Your task to perform on an android device: Open the calendar app, open the side menu, and click the "Day" option Image 0: 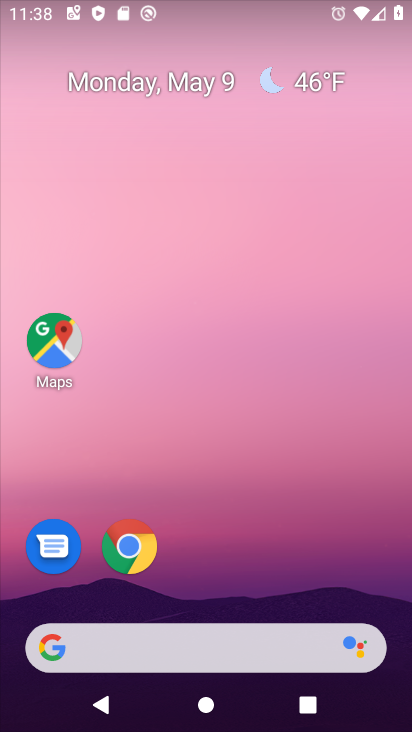
Step 0: drag from (341, 577) to (341, 79)
Your task to perform on an android device: Open the calendar app, open the side menu, and click the "Day" option Image 1: 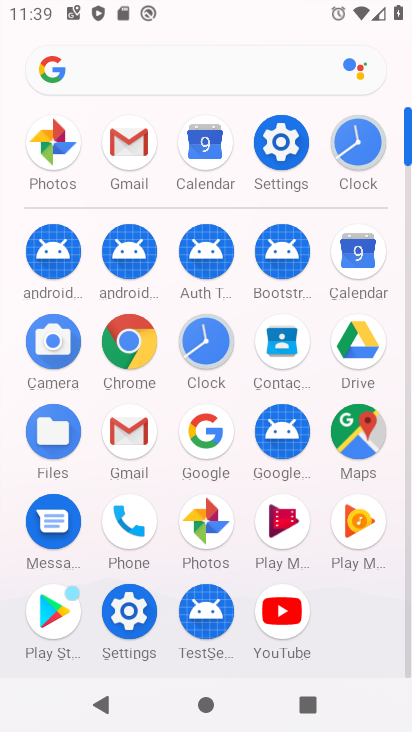
Step 1: click (207, 151)
Your task to perform on an android device: Open the calendar app, open the side menu, and click the "Day" option Image 2: 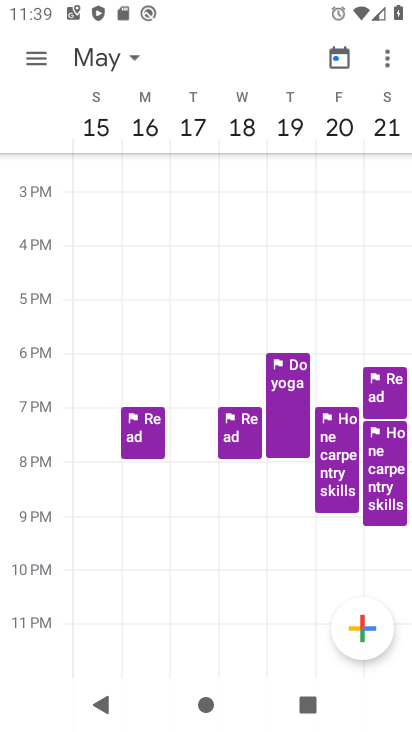
Step 2: click (39, 70)
Your task to perform on an android device: Open the calendar app, open the side menu, and click the "Day" option Image 3: 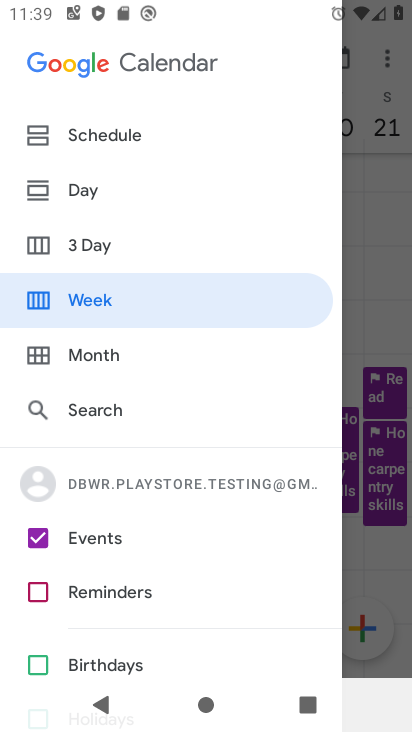
Step 3: click (79, 193)
Your task to perform on an android device: Open the calendar app, open the side menu, and click the "Day" option Image 4: 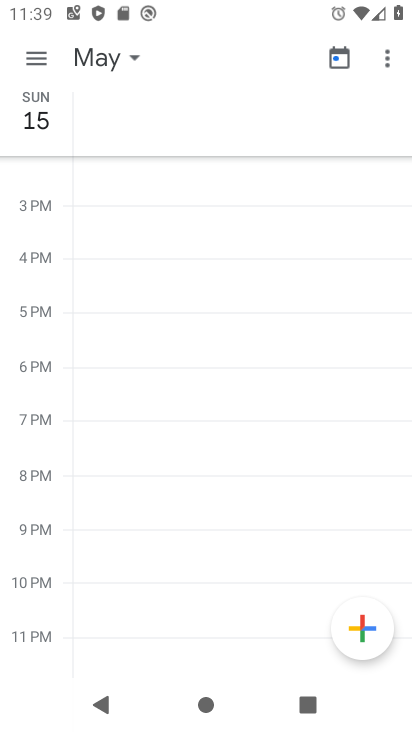
Step 4: task complete